Your task to perform on an android device: turn pop-ups off in chrome Image 0: 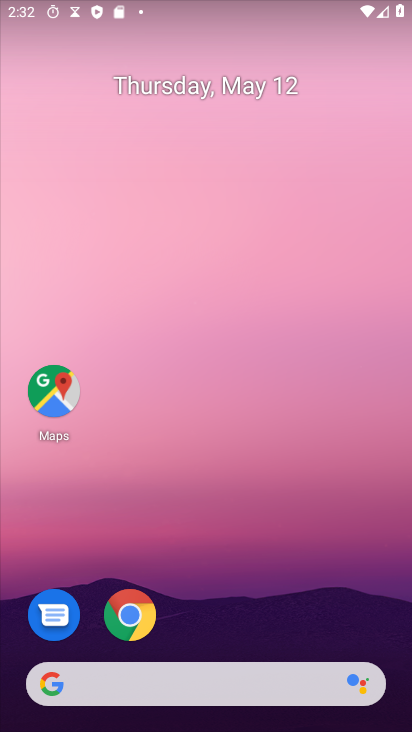
Step 0: press home button
Your task to perform on an android device: turn pop-ups off in chrome Image 1: 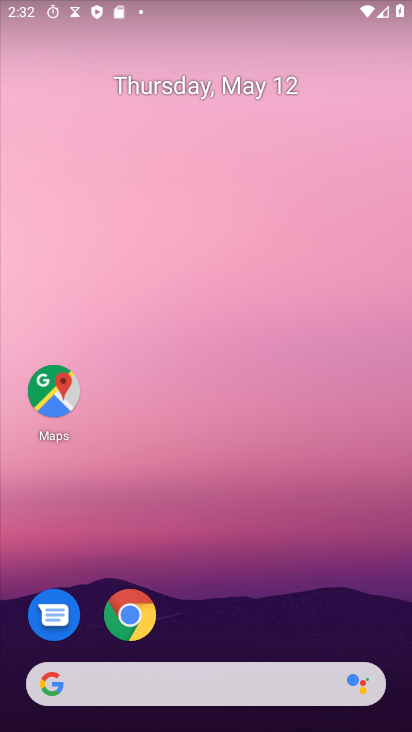
Step 1: click (123, 608)
Your task to perform on an android device: turn pop-ups off in chrome Image 2: 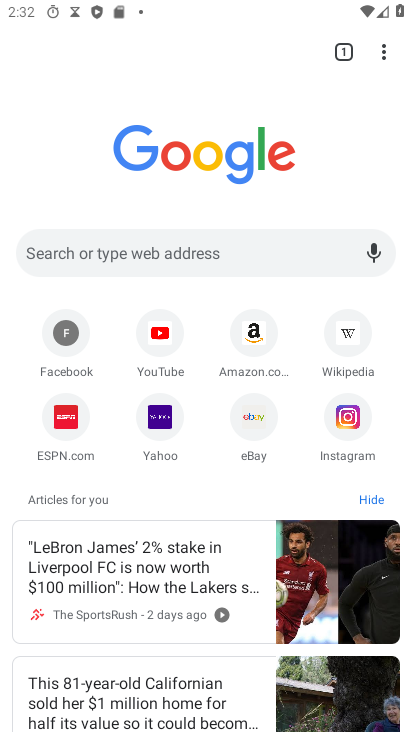
Step 2: click (380, 48)
Your task to perform on an android device: turn pop-ups off in chrome Image 3: 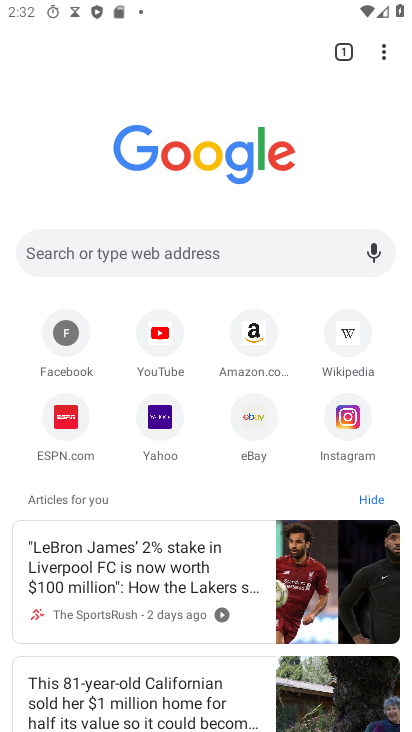
Step 3: click (387, 53)
Your task to perform on an android device: turn pop-ups off in chrome Image 4: 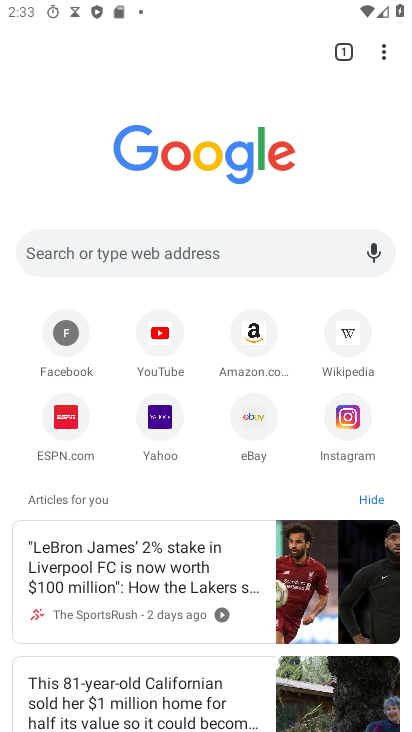
Step 4: click (384, 46)
Your task to perform on an android device: turn pop-ups off in chrome Image 5: 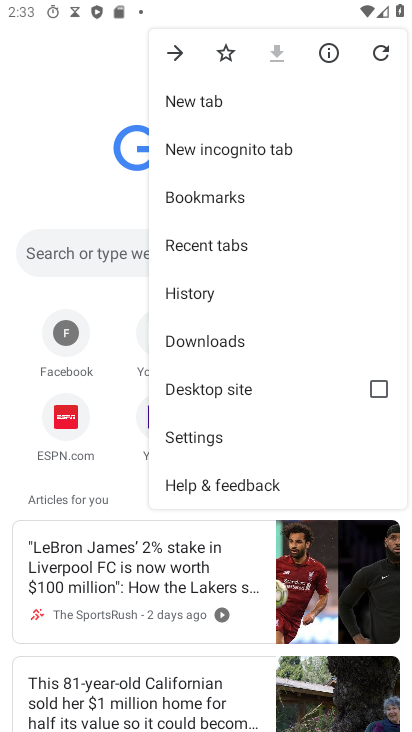
Step 5: click (180, 425)
Your task to perform on an android device: turn pop-ups off in chrome Image 6: 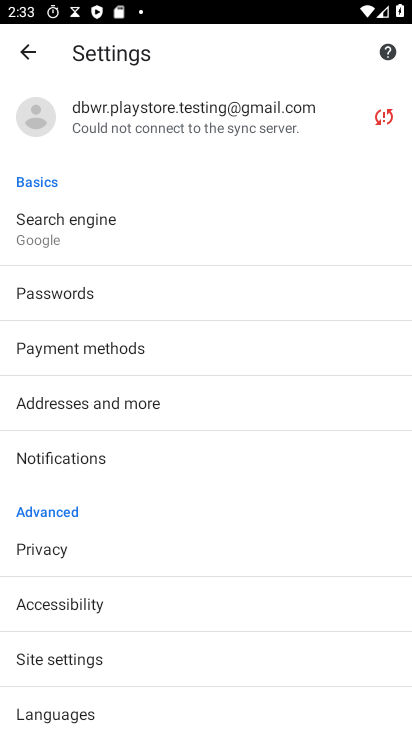
Step 6: drag from (65, 661) to (170, 162)
Your task to perform on an android device: turn pop-ups off in chrome Image 7: 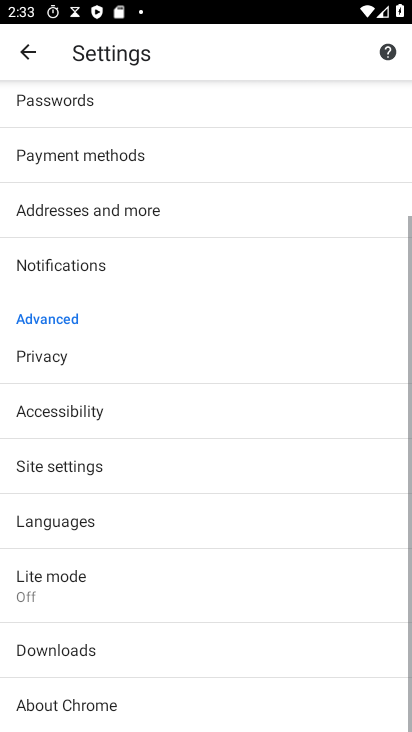
Step 7: click (75, 469)
Your task to perform on an android device: turn pop-ups off in chrome Image 8: 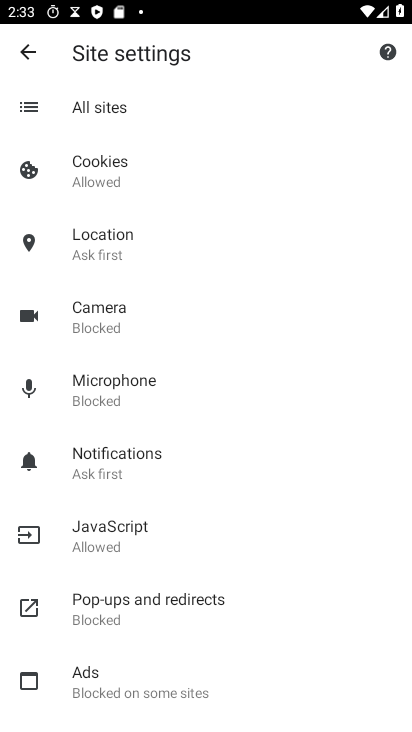
Step 8: click (169, 601)
Your task to perform on an android device: turn pop-ups off in chrome Image 9: 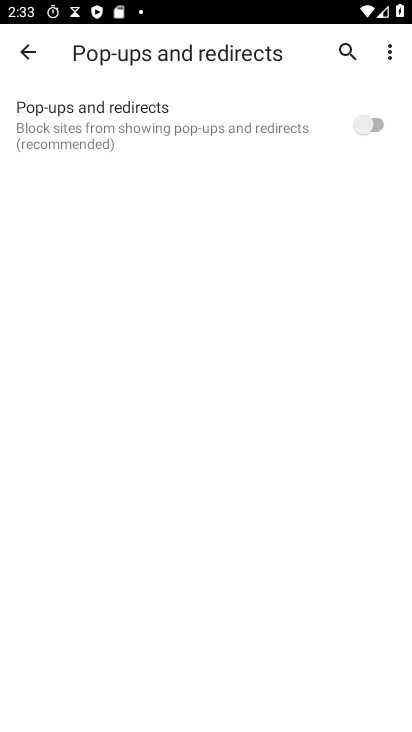
Step 9: task complete